Your task to perform on an android device: star an email in the gmail app Image 0: 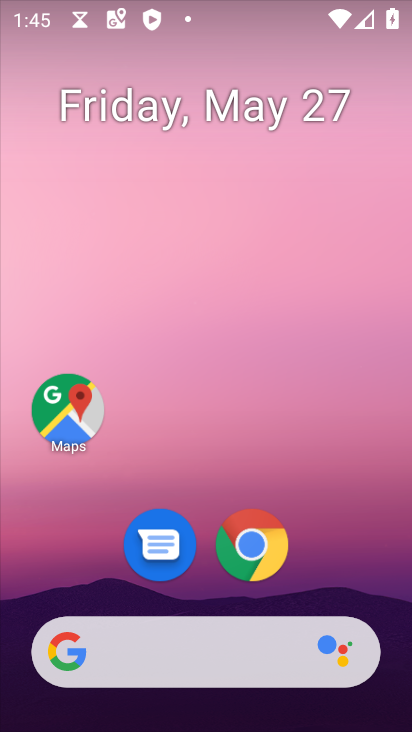
Step 0: press home button
Your task to perform on an android device: star an email in the gmail app Image 1: 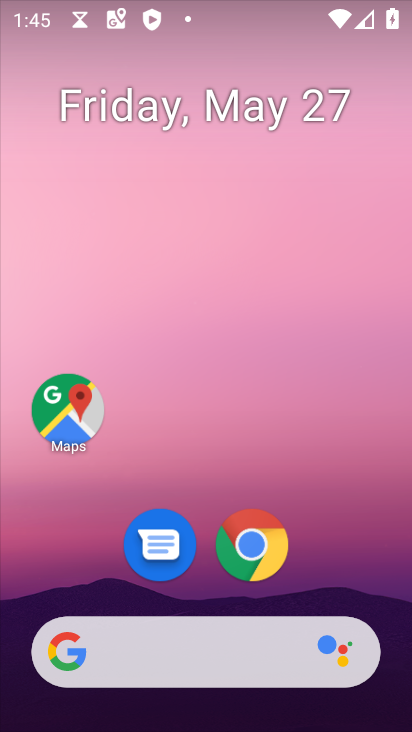
Step 1: drag from (354, 531) to (246, 3)
Your task to perform on an android device: star an email in the gmail app Image 2: 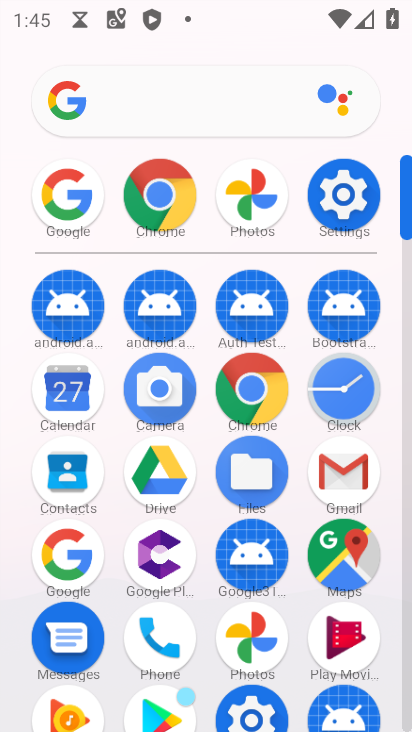
Step 2: click (362, 465)
Your task to perform on an android device: star an email in the gmail app Image 3: 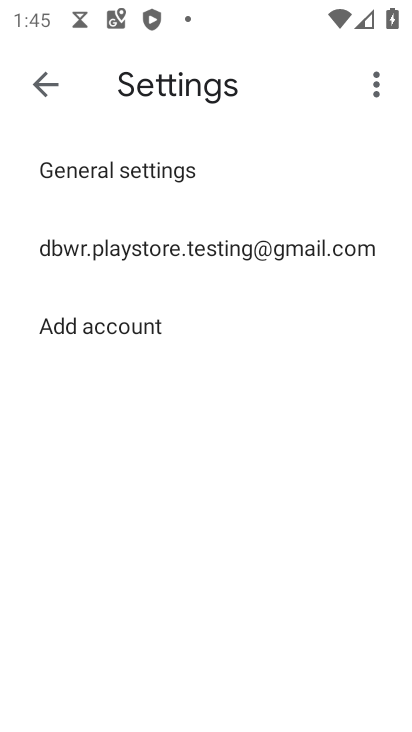
Step 3: click (39, 72)
Your task to perform on an android device: star an email in the gmail app Image 4: 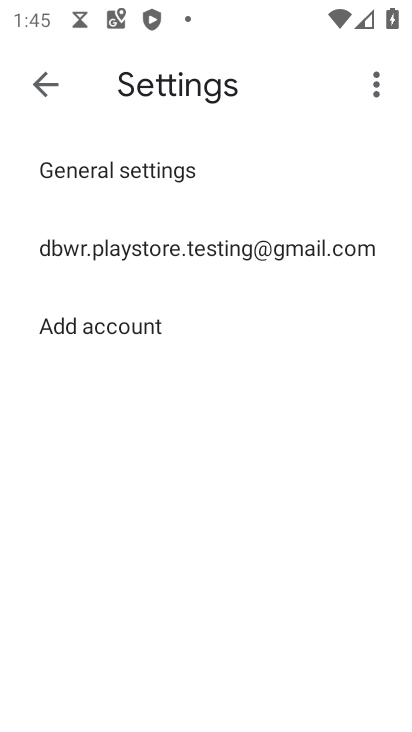
Step 4: click (39, 85)
Your task to perform on an android device: star an email in the gmail app Image 5: 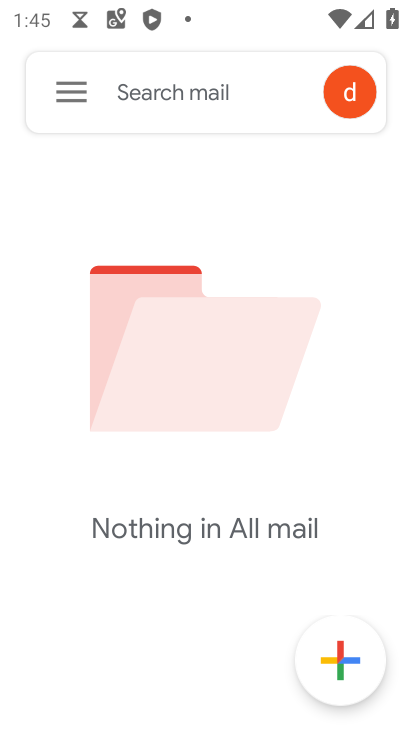
Step 5: task complete